Your task to perform on an android device: Go to Google maps Image 0: 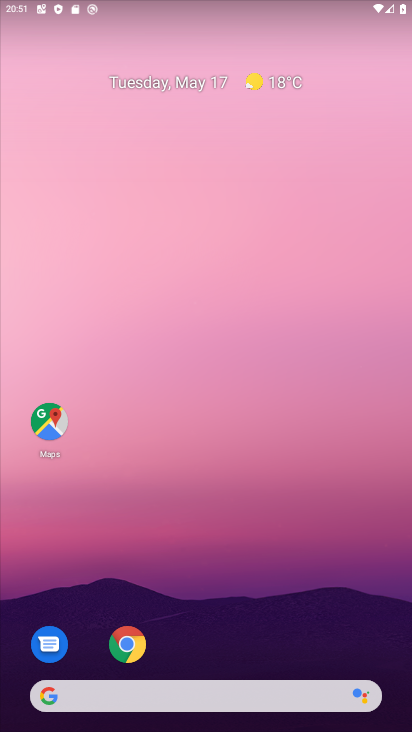
Step 0: click (47, 425)
Your task to perform on an android device: Go to Google maps Image 1: 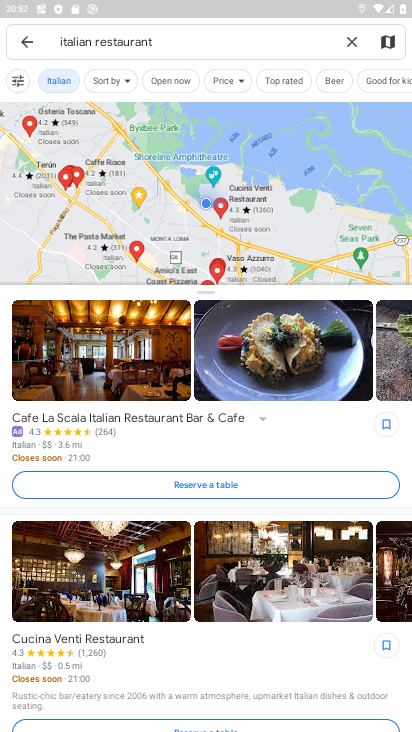
Step 1: task complete